Your task to perform on an android device: Open wifi settings Image 0: 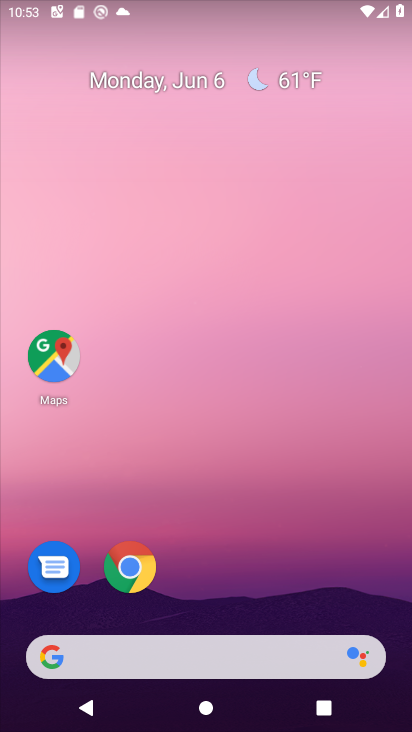
Step 0: drag from (233, 726) to (191, 100)
Your task to perform on an android device: Open wifi settings Image 1: 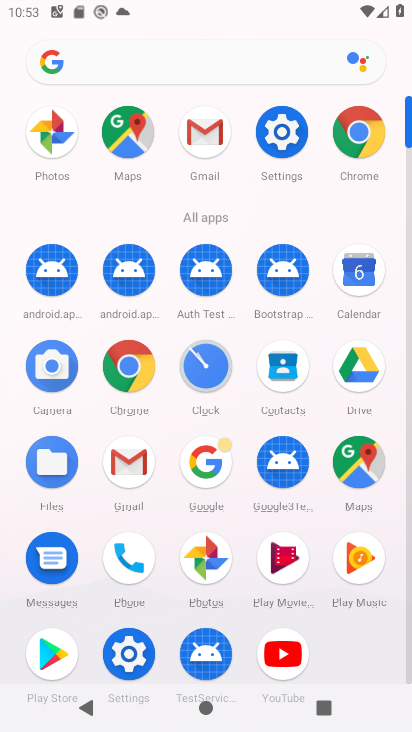
Step 1: click (279, 129)
Your task to perform on an android device: Open wifi settings Image 2: 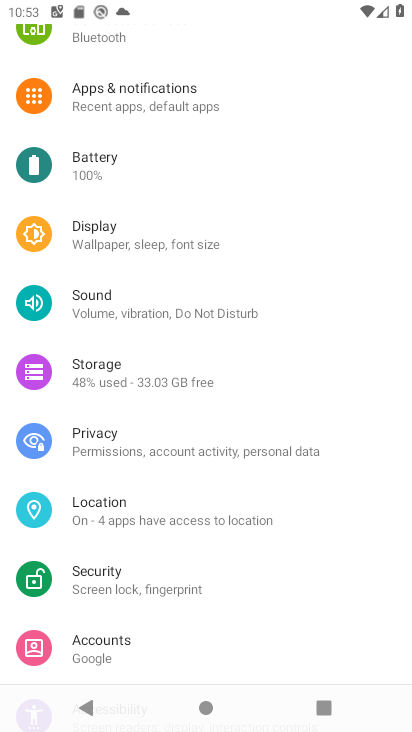
Step 2: drag from (216, 159) to (223, 605)
Your task to perform on an android device: Open wifi settings Image 3: 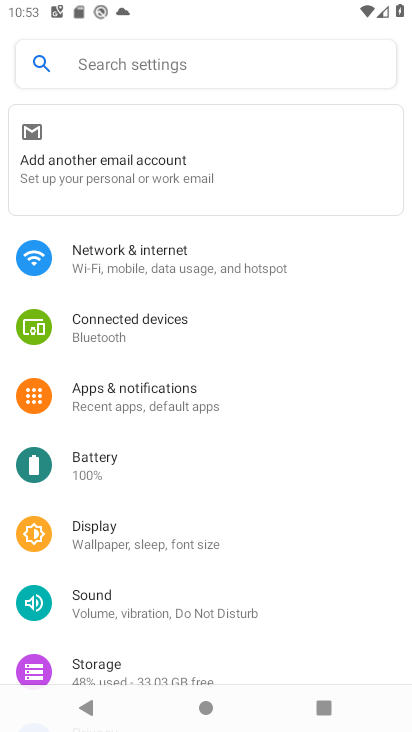
Step 3: click (138, 268)
Your task to perform on an android device: Open wifi settings Image 4: 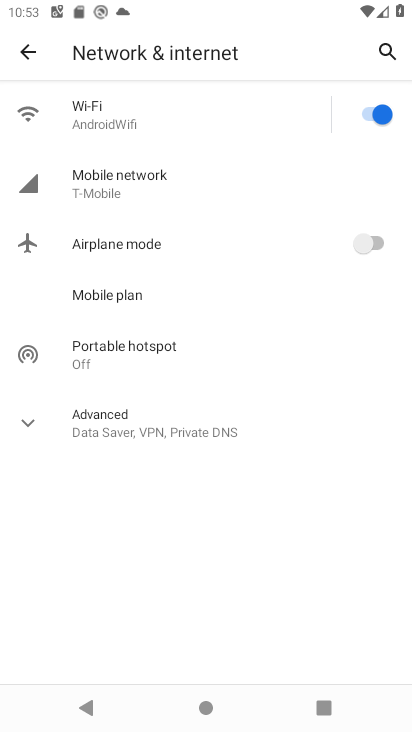
Step 4: click (89, 107)
Your task to perform on an android device: Open wifi settings Image 5: 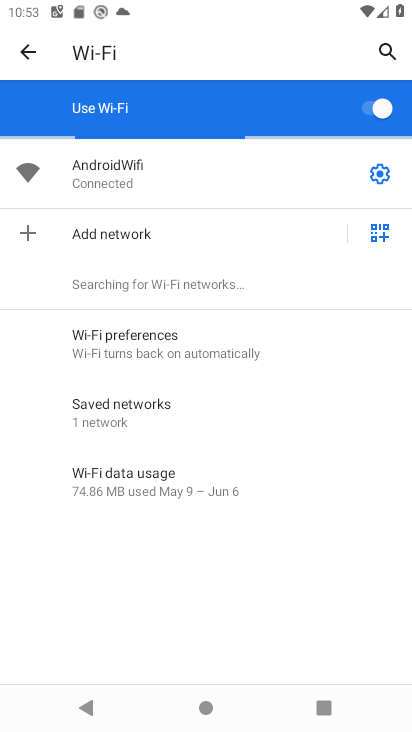
Step 5: task complete